Your task to perform on an android device: Open sound settings Image 0: 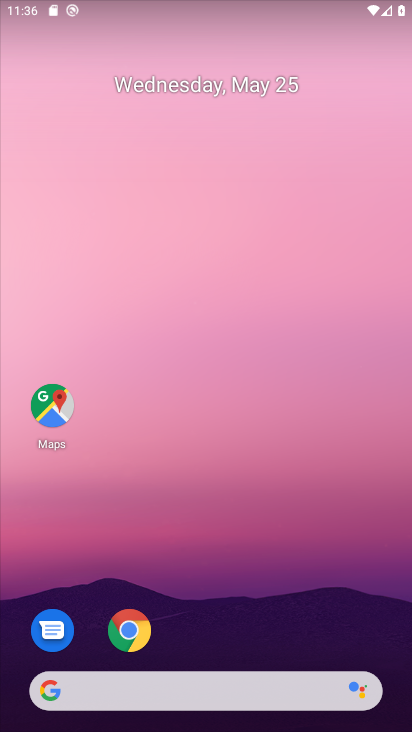
Step 0: drag from (234, 666) to (333, 14)
Your task to perform on an android device: Open sound settings Image 1: 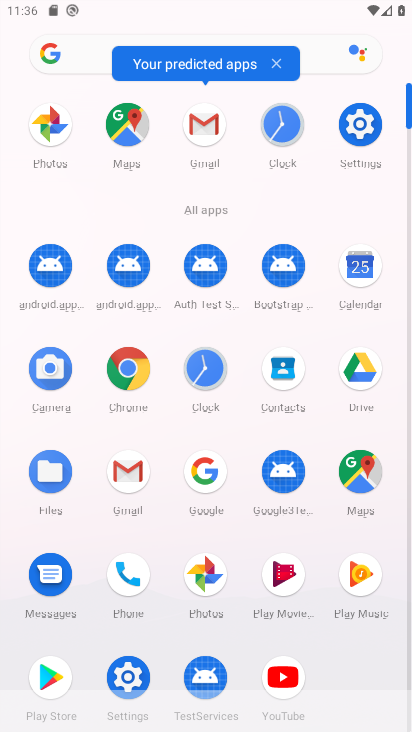
Step 1: drag from (137, 634) to (197, 384)
Your task to perform on an android device: Open sound settings Image 2: 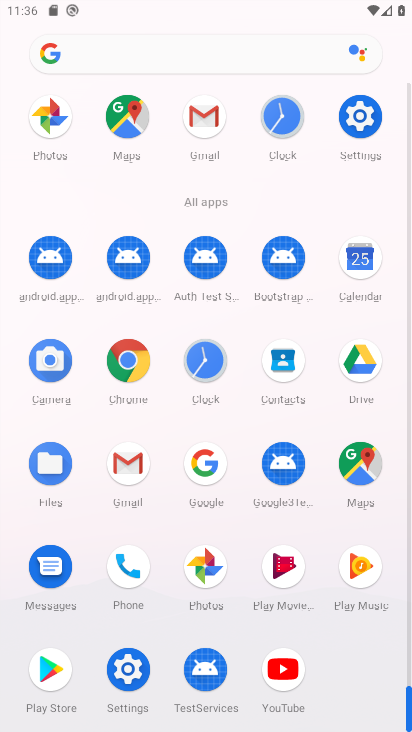
Step 2: click (139, 684)
Your task to perform on an android device: Open sound settings Image 3: 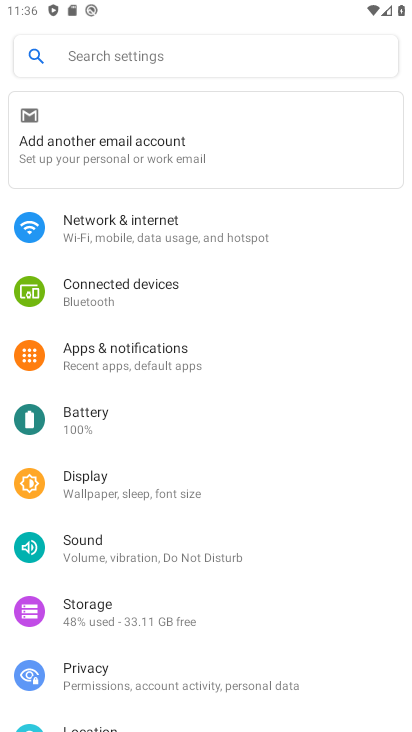
Step 3: click (139, 550)
Your task to perform on an android device: Open sound settings Image 4: 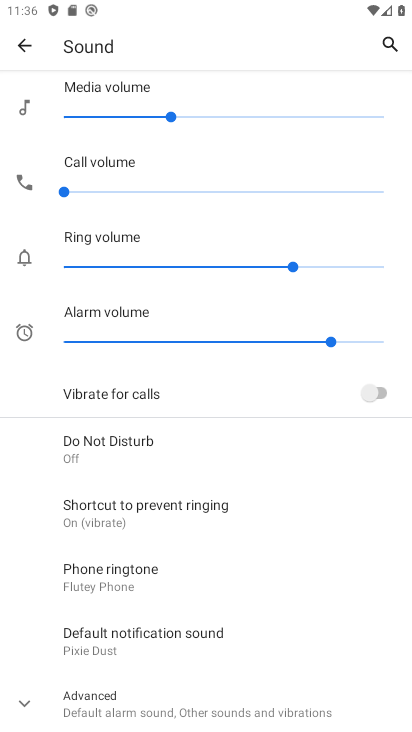
Step 4: task complete